Your task to perform on an android device: refresh tabs in the chrome app Image 0: 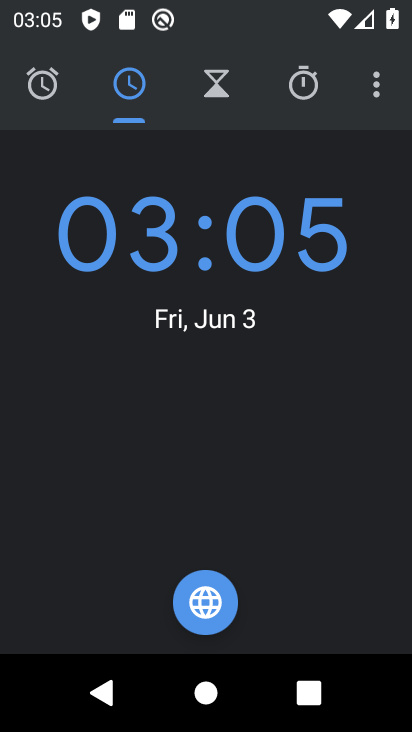
Step 0: press home button
Your task to perform on an android device: refresh tabs in the chrome app Image 1: 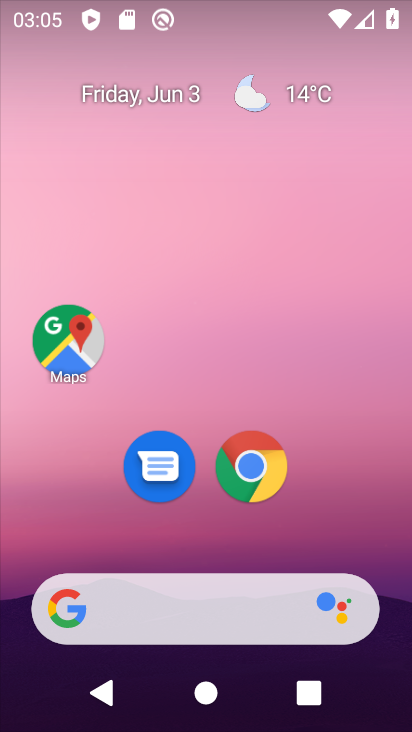
Step 1: click (255, 452)
Your task to perform on an android device: refresh tabs in the chrome app Image 2: 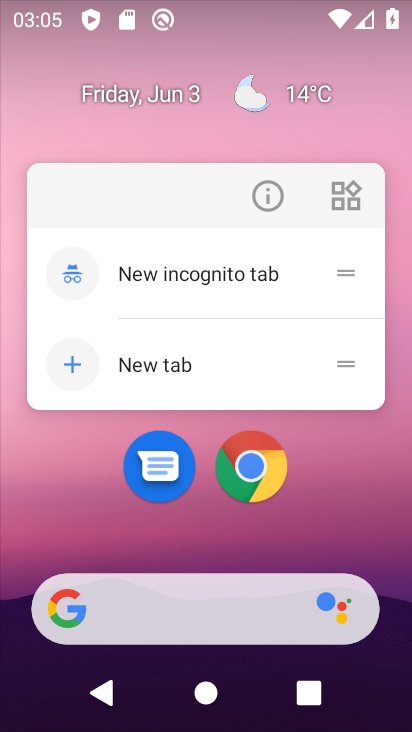
Step 2: click (244, 463)
Your task to perform on an android device: refresh tabs in the chrome app Image 3: 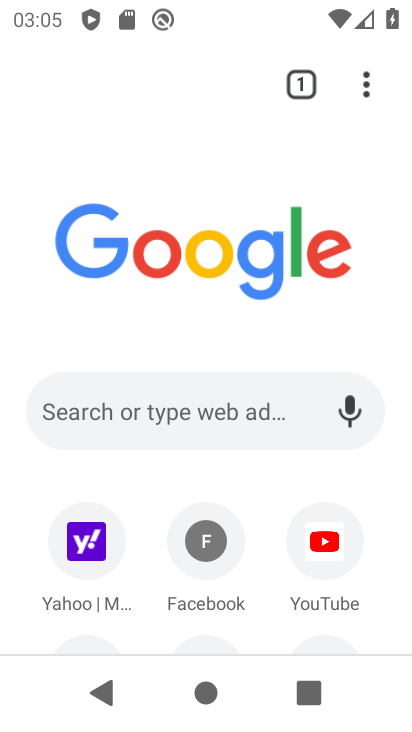
Step 3: click (365, 83)
Your task to perform on an android device: refresh tabs in the chrome app Image 4: 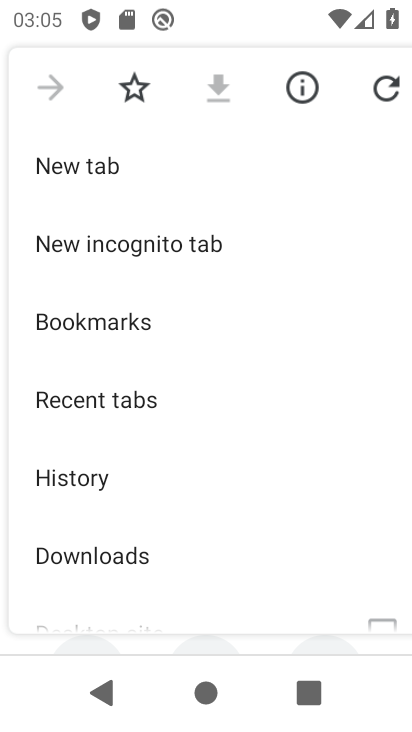
Step 4: click (385, 83)
Your task to perform on an android device: refresh tabs in the chrome app Image 5: 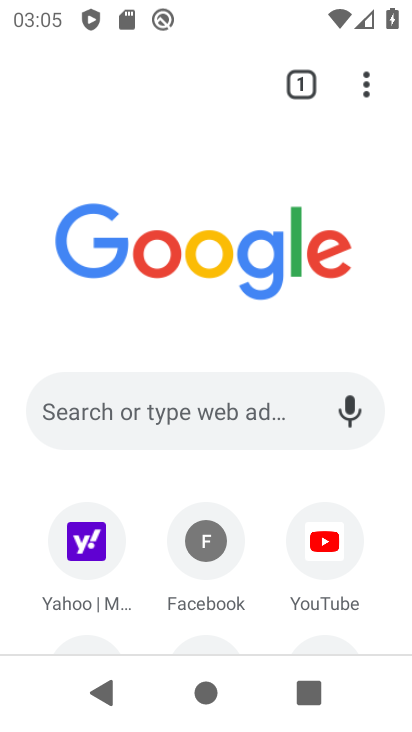
Step 5: task complete